Your task to perform on an android device: Is it going to rain today? Image 0: 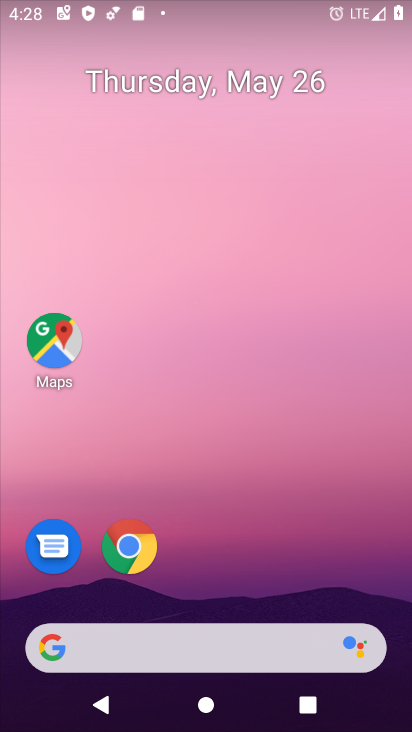
Step 0: drag from (241, 606) to (313, 144)
Your task to perform on an android device: Is it going to rain today? Image 1: 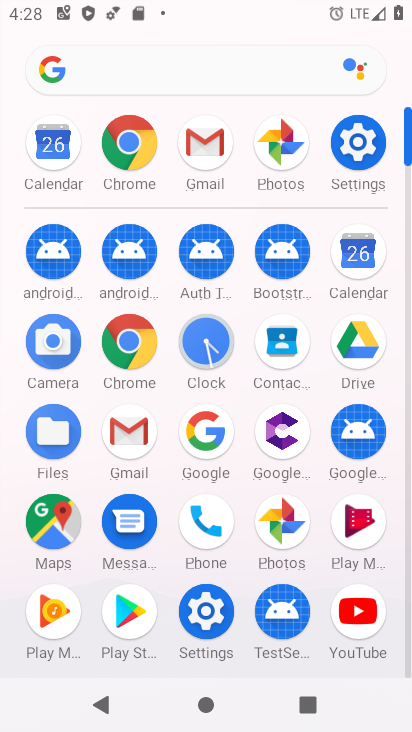
Step 1: click (146, 75)
Your task to perform on an android device: Is it going to rain today? Image 2: 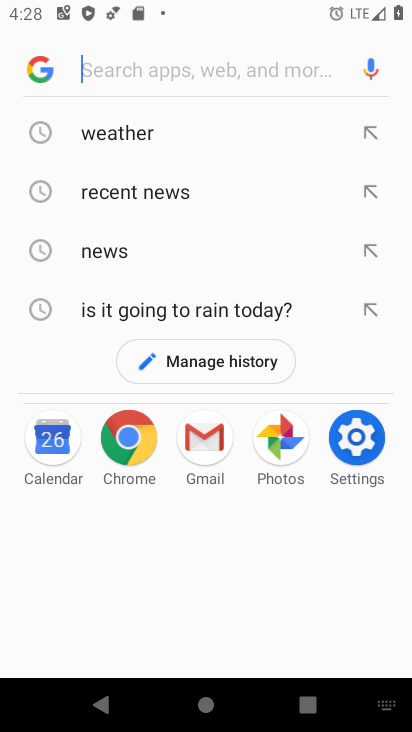
Step 2: click (120, 119)
Your task to perform on an android device: Is it going to rain today? Image 3: 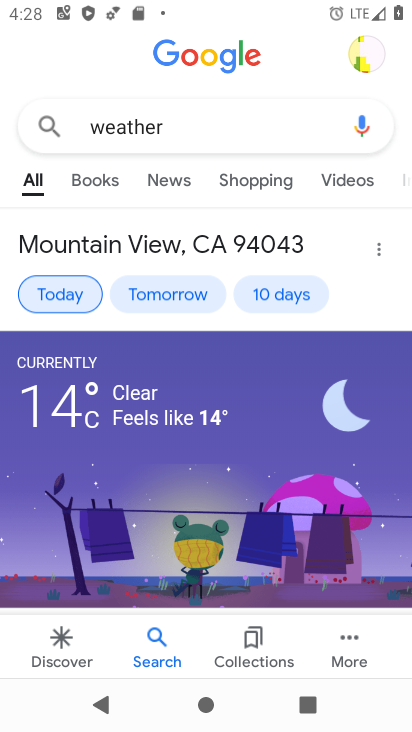
Step 3: task complete